Your task to perform on an android device: install app "Gboard" Image 0: 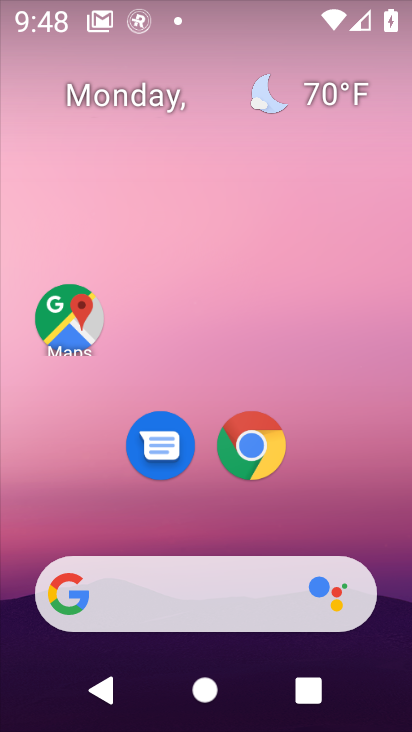
Step 0: drag from (265, 681) to (296, 267)
Your task to perform on an android device: install app "Gboard" Image 1: 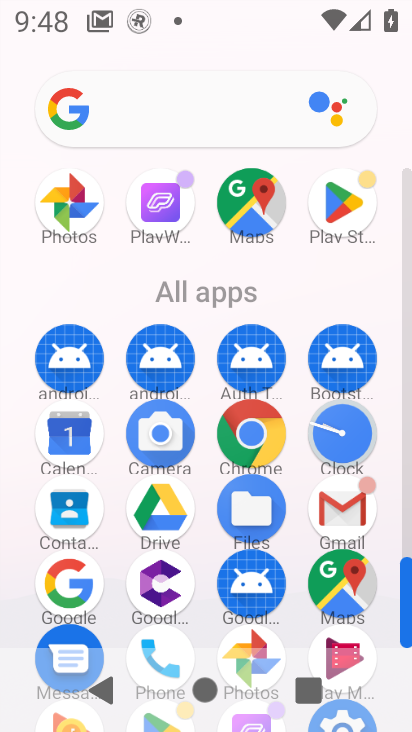
Step 1: click (342, 214)
Your task to perform on an android device: install app "Gboard" Image 2: 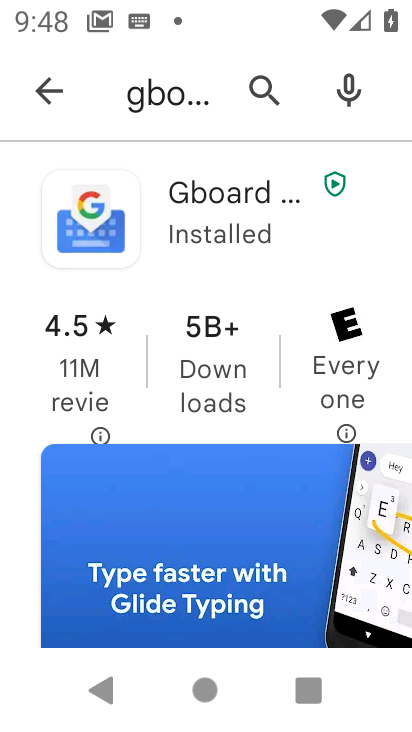
Step 2: task complete